Your task to perform on an android device: toggle wifi Image 0: 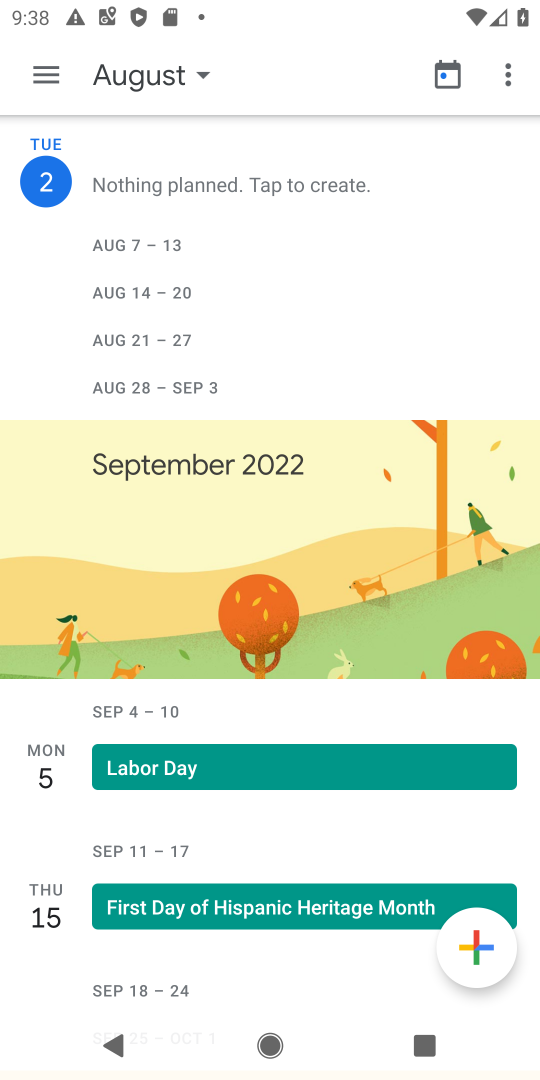
Step 0: press home button
Your task to perform on an android device: toggle wifi Image 1: 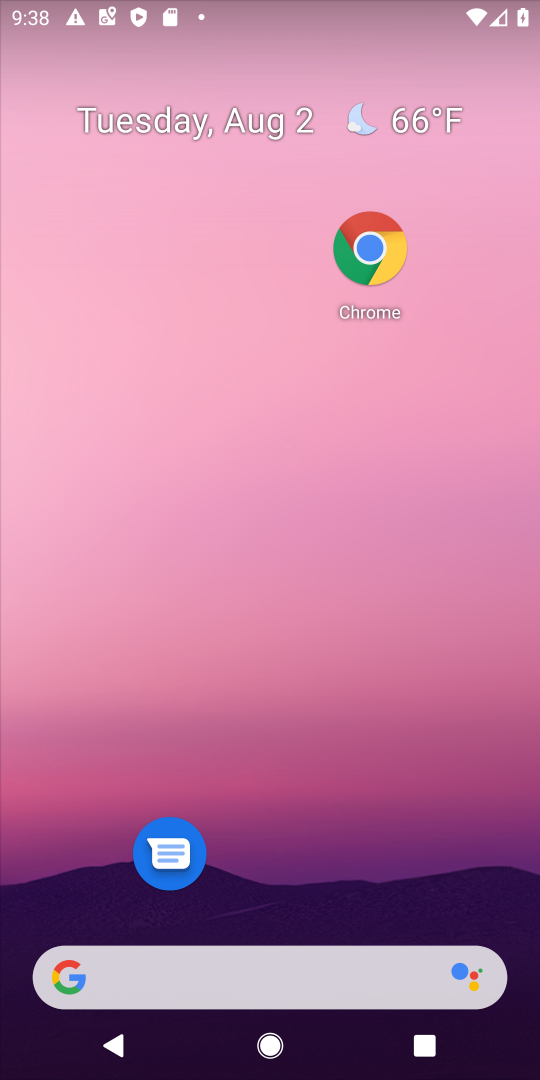
Step 1: drag from (257, 908) to (239, 15)
Your task to perform on an android device: toggle wifi Image 2: 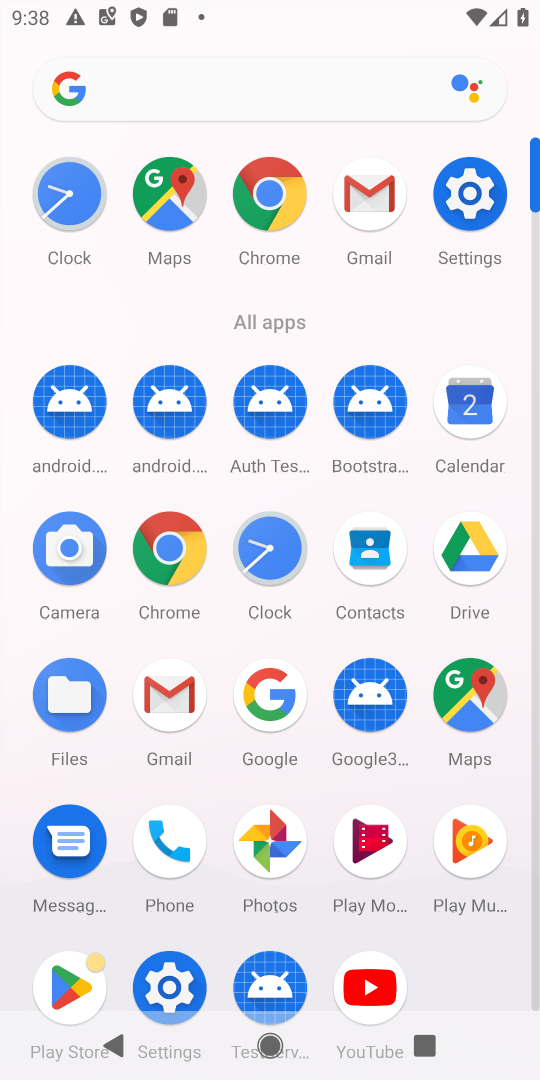
Step 2: click (464, 238)
Your task to perform on an android device: toggle wifi Image 3: 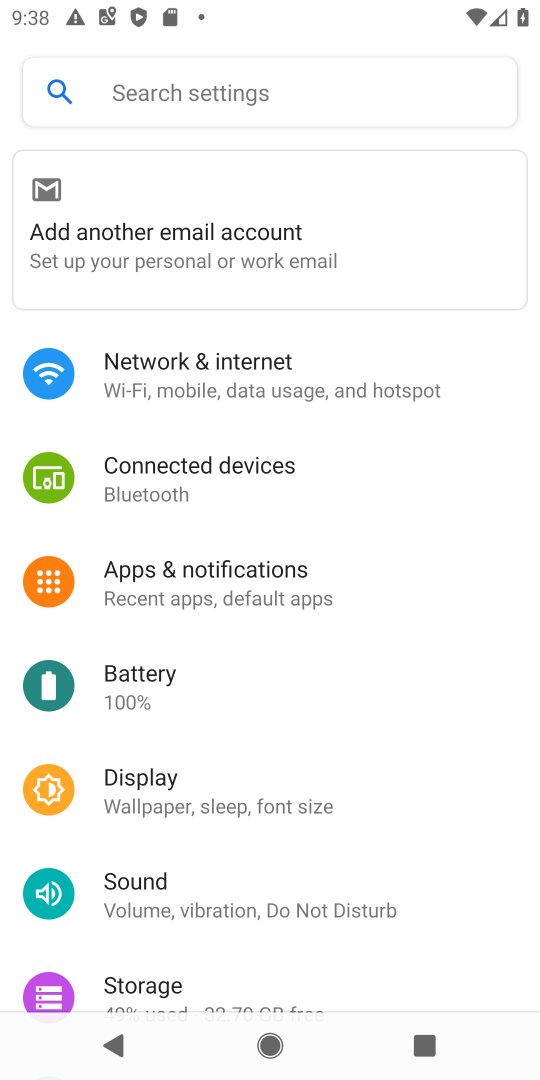
Step 3: click (181, 353)
Your task to perform on an android device: toggle wifi Image 4: 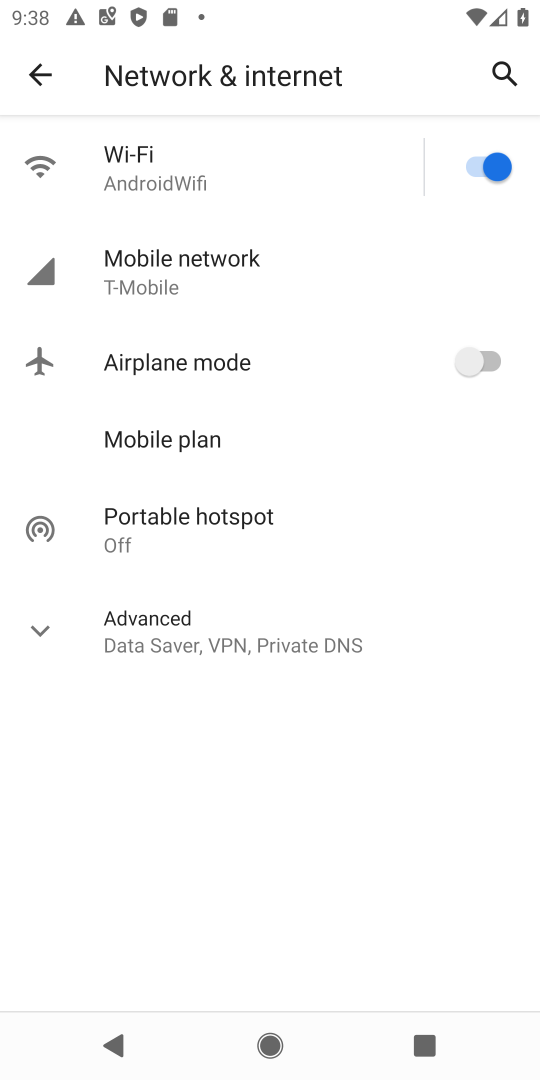
Step 4: click (140, 157)
Your task to perform on an android device: toggle wifi Image 5: 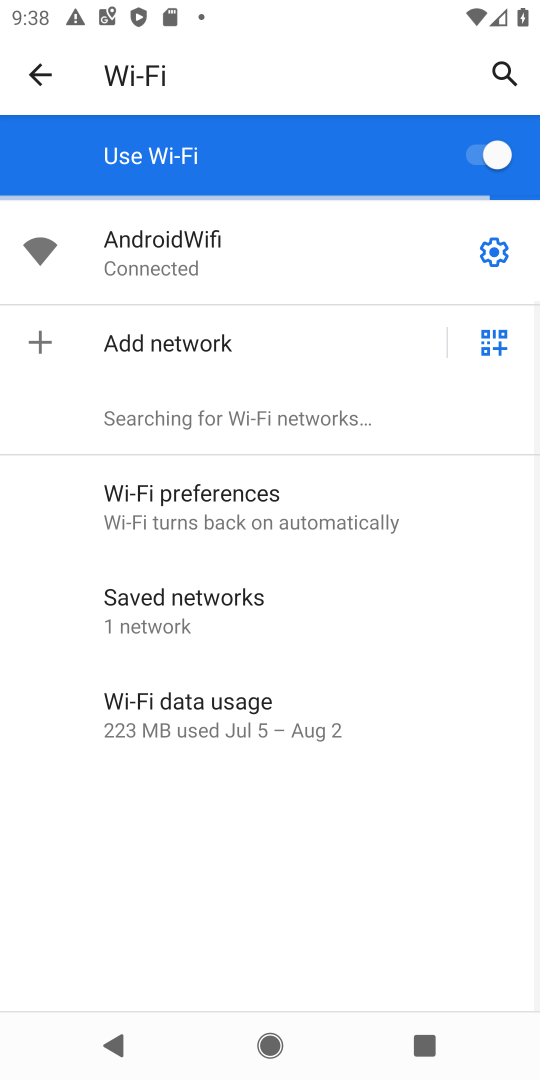
Step 5: click (485, 156)
Your task to perform on an android device: toggle wifi Image 6: 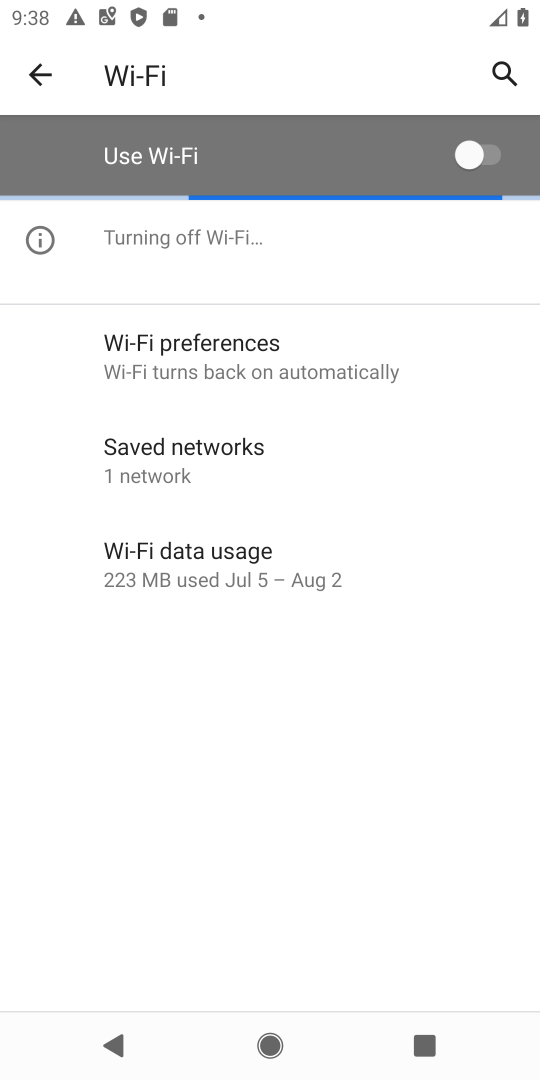
Step 6: task complete